Your task to perform on an android device: all mails in gmail Image 0: 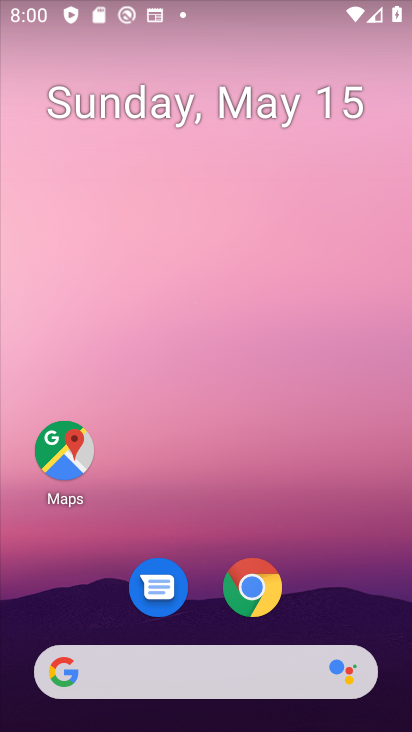
Step 0: drag from (181, 636) to (375, 188)
Your task to perform on an android device: all mails in gmail Image 1: 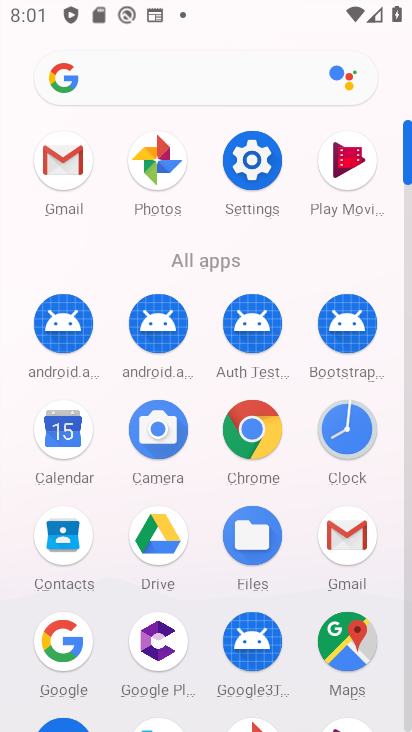
Step 1: click (338, 562)
Your task to perform on an android device: all mails in gmail Image 2: 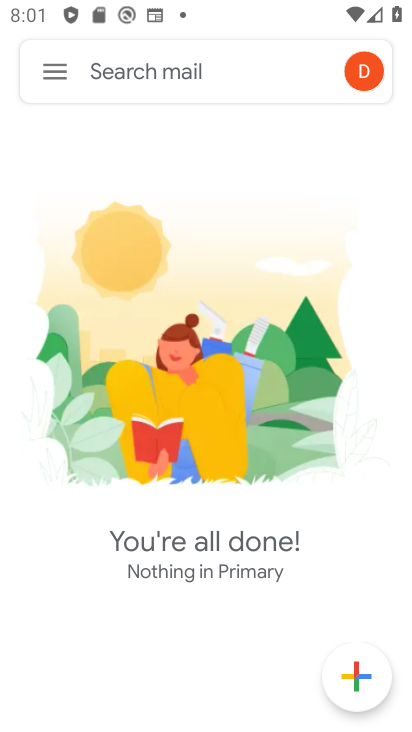
Step 2: click (49, 71)
Your task to perform on an android device: all mails in gmail Image 3: 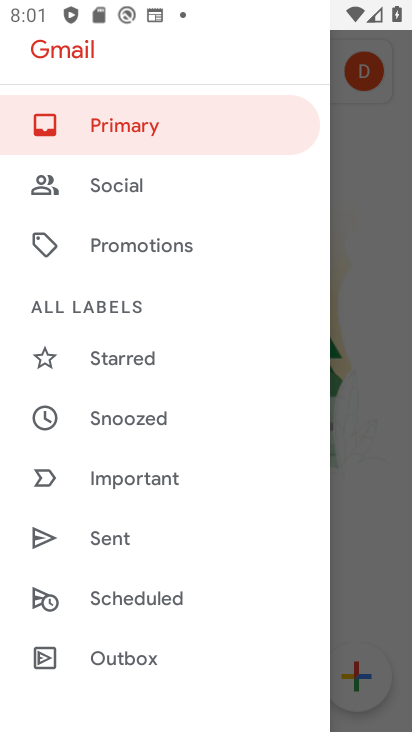
Step 3: drag from (159, 531) to (214, 219)
Your task to perform on an android device: all mails in gmail Image 4: 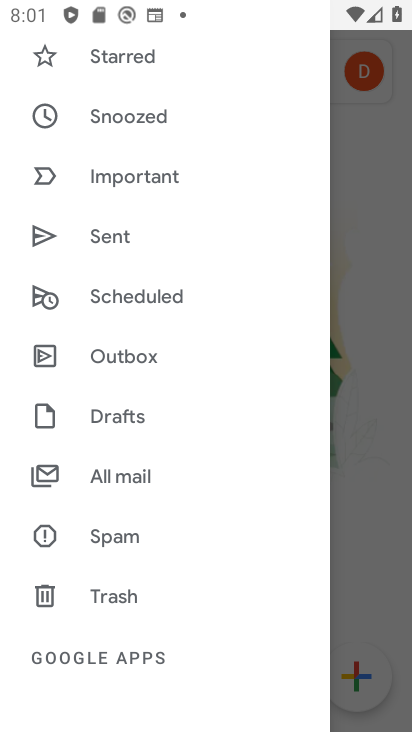
Step 4: click (96, 479)
Your task to perform on an android device: all mails in gmail Image 5: 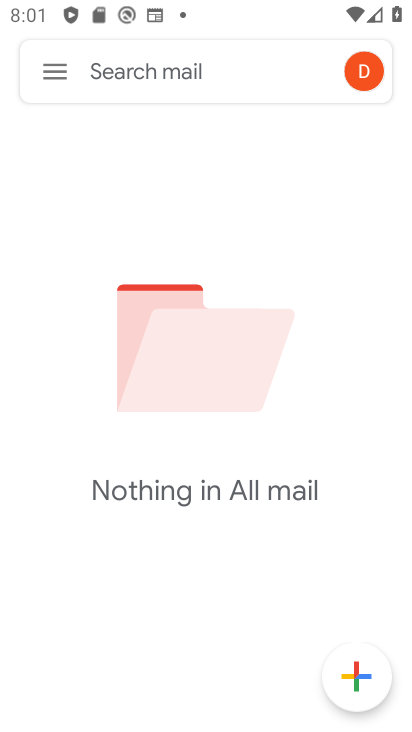
Step 5: task complete